Your task to perform on an android device: Open calendar and show me the second week of next month Image 0: 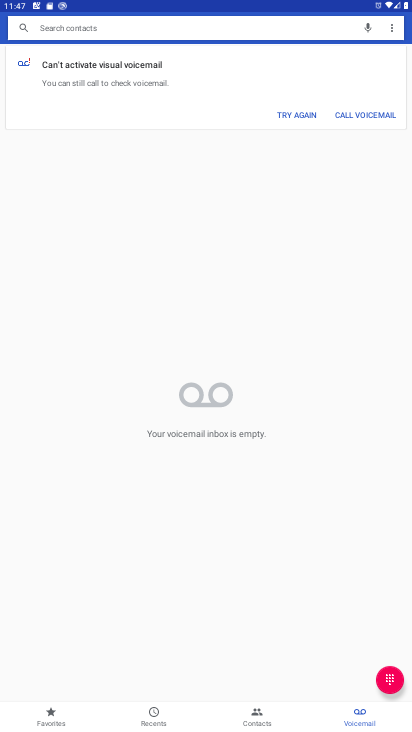
Step 0: press home button
Your task to perform on an android device: Open calendar and show me the second week of next month Image 1: 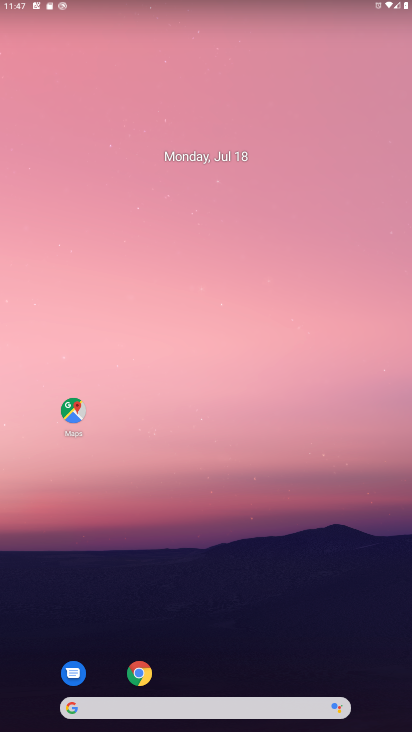
Step 1: drag from (187, 633) to (191, 202)
Your task to perform on an android device: Open calendar and show me the second week of next month Image 2: 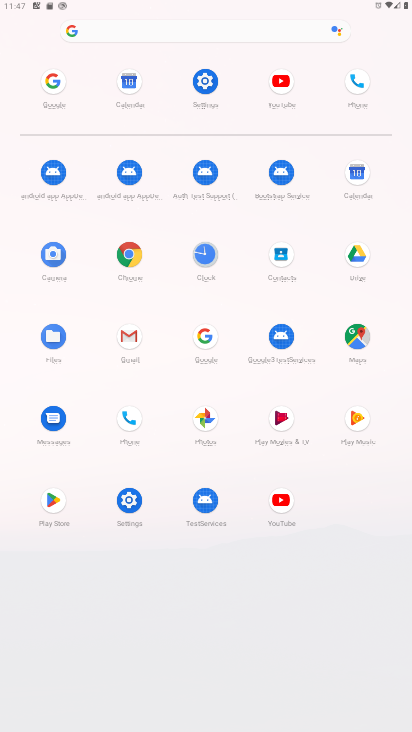
Step 2: click (353, 200)
Your task to perform on an android device: Open calendar and show me the second week of next month Image 3: 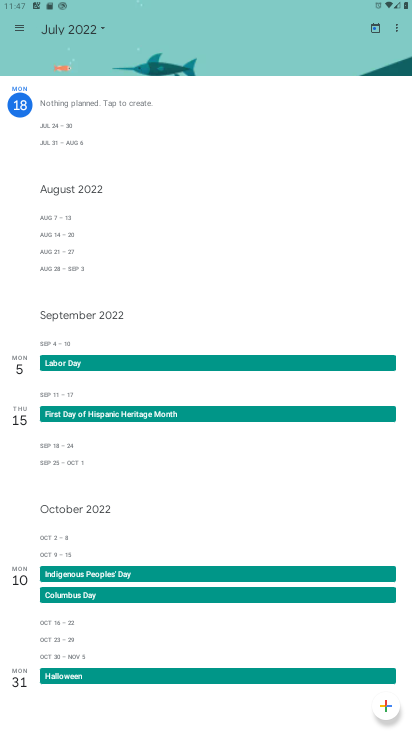
Step 3: click (100, 42)
Your task to perform on an android device: Open calendar and show me the second week of next month Image 4: 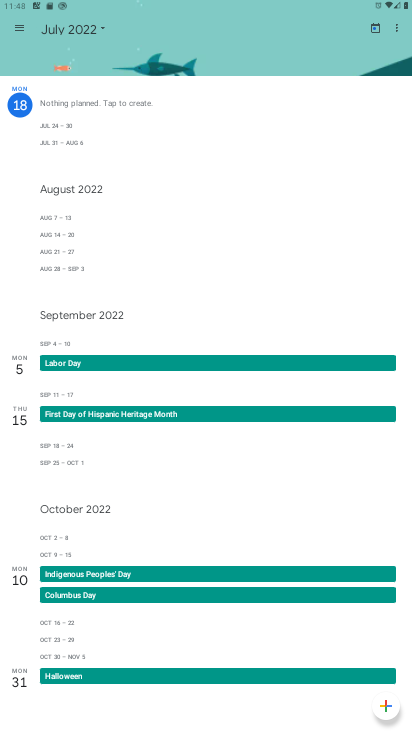
Step 4: click (97, 29)
Your task to perform on an android device: Open calendar and show me the second week of next month Image 5: 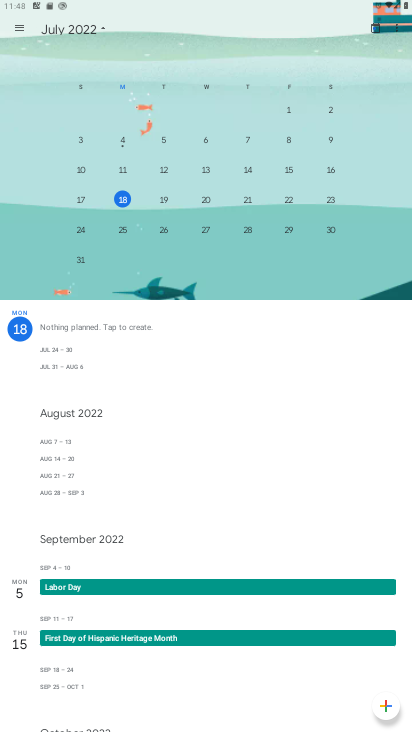
Step 5: drag from (368, 170) to (2, 167)
Your task to perform on an android device: Open calendar and show me the second week of next month Image 6: 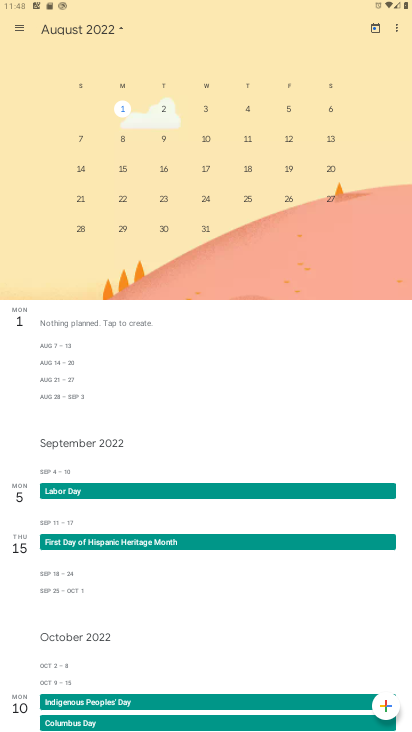
Step 6: click (83, 135)
Your task to perform on an android device: Open calendar and show me the second week of next month Image 7: 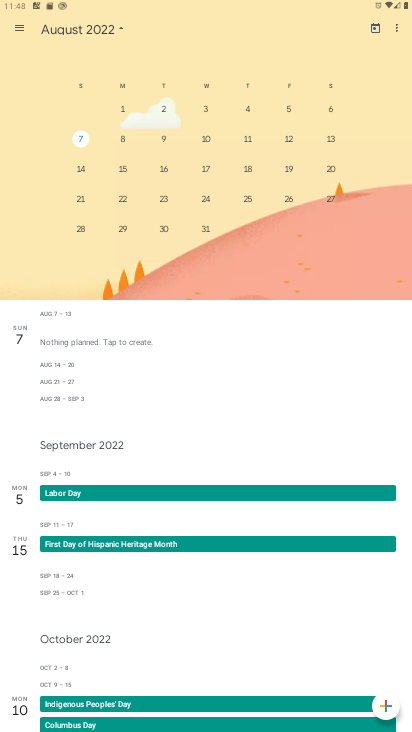
Step 7: click (84, 140)
Your task to perform on an android device: Open calendar and show me the second week of next month Image 8: 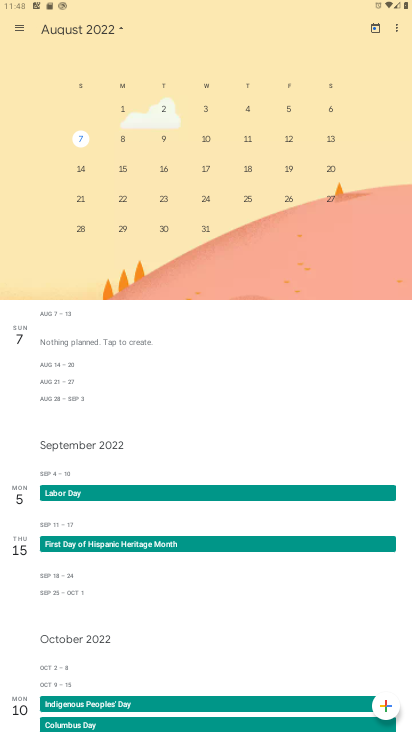
Step 8: task complete